Your task to perform on an android device: Show me popular games on the Play Store Image 0: 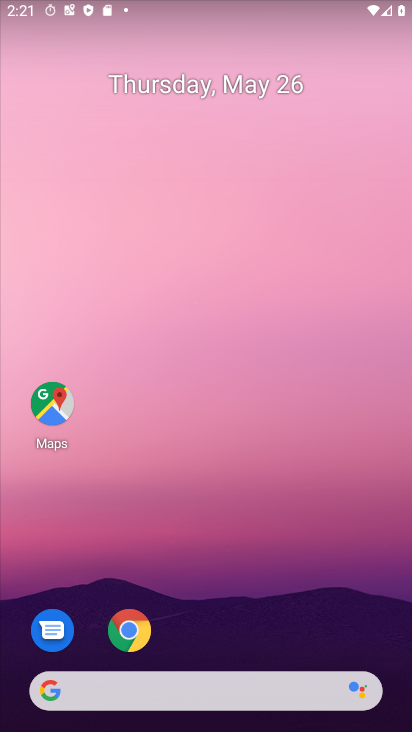
Step 0: drag from (237, 589) to (234, 33)
Your task to perform on an android device: Show me popular games on the Play Store Image 1: 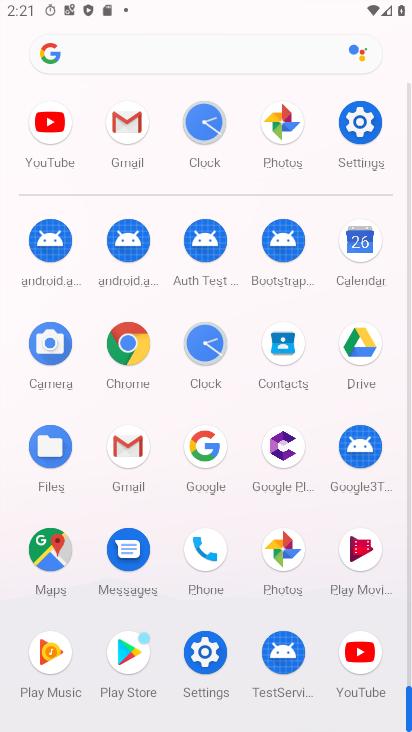
Step 1: click (133, 653)
Your task to perform on an android device: Show me popular games on the Play Store Image 2: 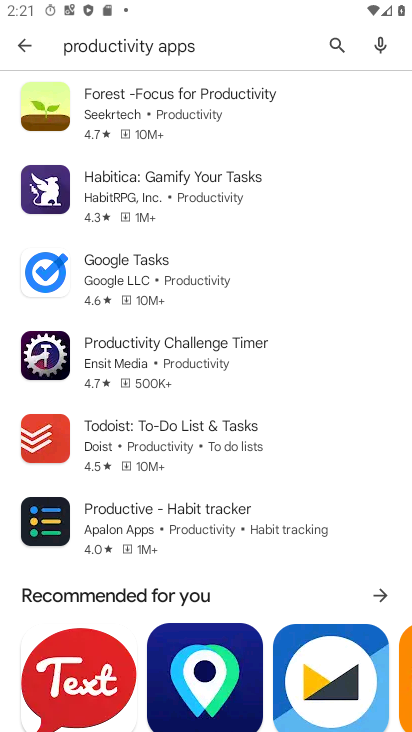
Step 2: click (322, 37)
Your task to perform on an android device: Show me popular games on the Play Store Image 3: 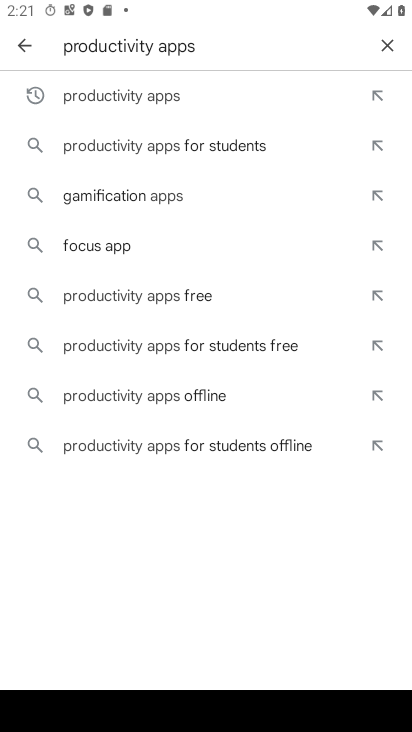
Step 3: click (380, 36)
Your task to perform on an android device: Show me popular games on the Play Store Image 4: 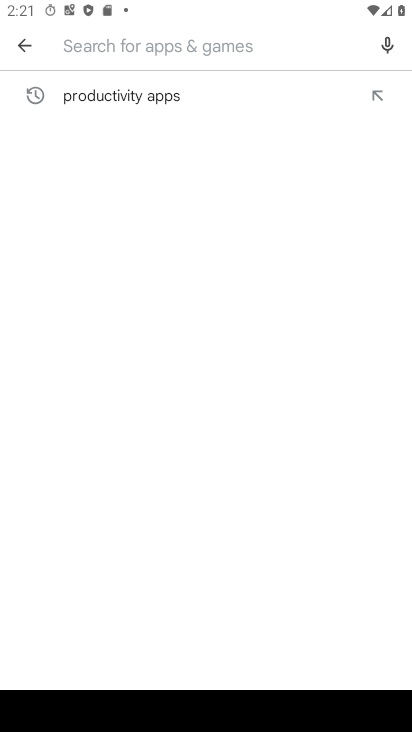
Step 4: type "popular games"
Your task to perform on an android device: Show me popular games on the Play Store Image 5: 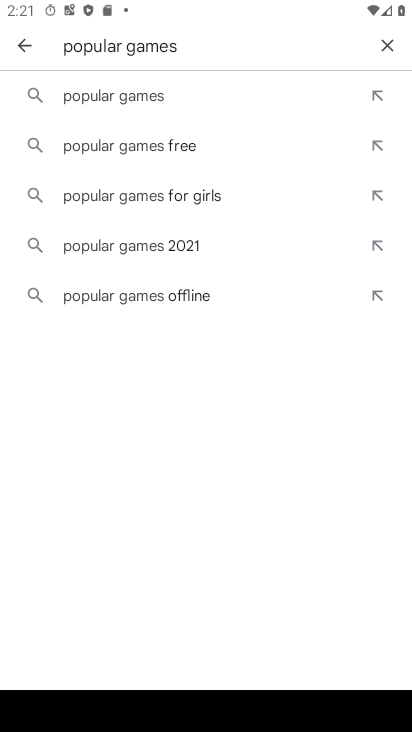
Step 5: click (211, 89)
Your task to perform on an android device: Show me popular games on the Play Store Image 6: 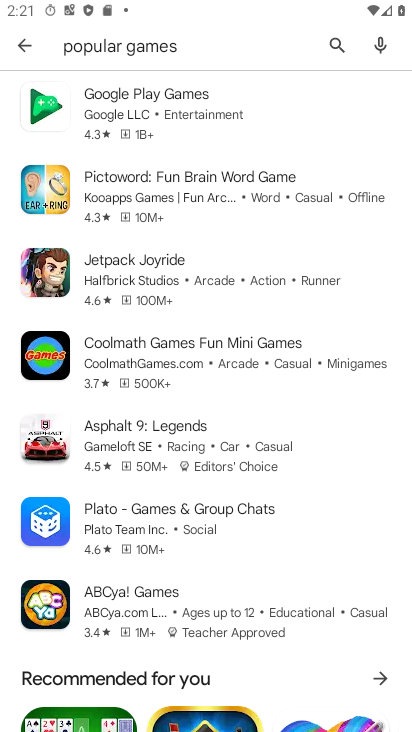
Step 6: task complete